Your task to perform on an android device: Search for sushi restaurants on Maps Image 0: 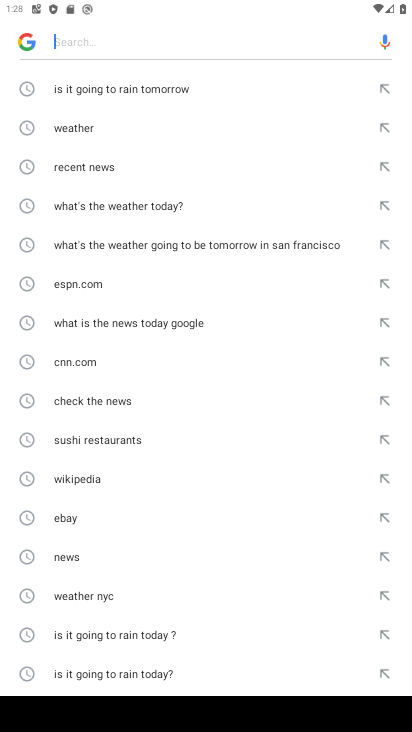
Step 0: press home button
Your task to perform on an android device: Search for sushi restaurants on Maps Image 1: 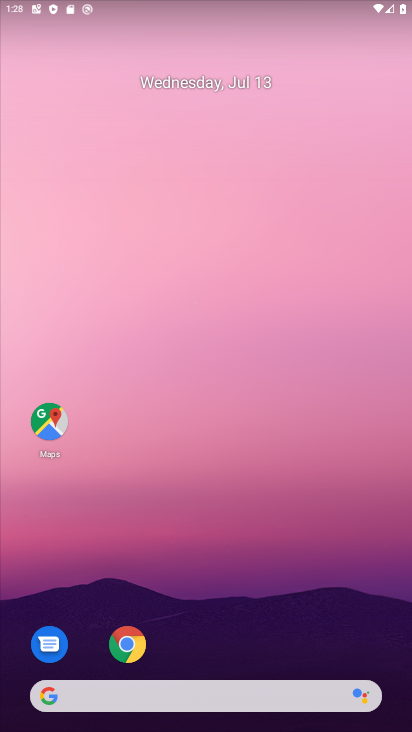
Step 1: click (57, 420)
Your task to perform on an android device: Search for sushi restaurants on Maps Image 2: 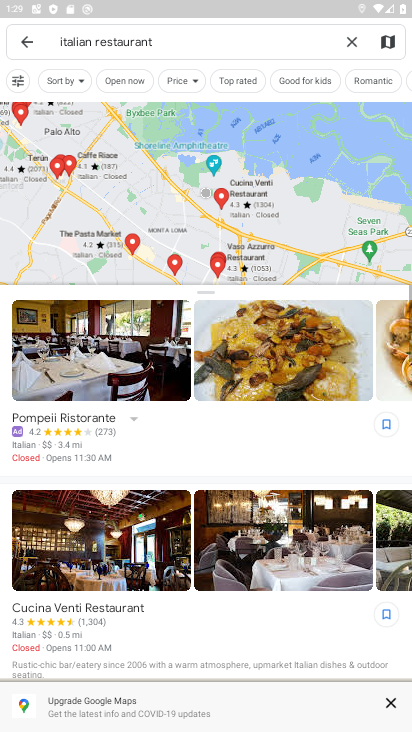
Step 2: click (354, 41)
Your task to perform on an android device: Search for sushi restaurants on Maps Image 3: 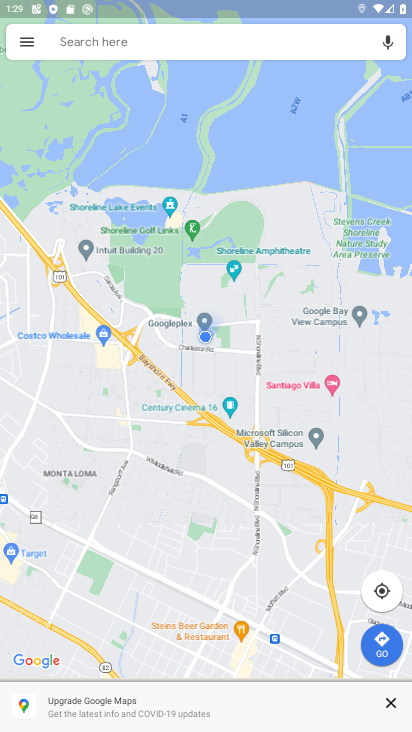
Step 3: click (65, 32)
Your task to perform on an android device: Search for sushi restaurants on Maps Image 4: 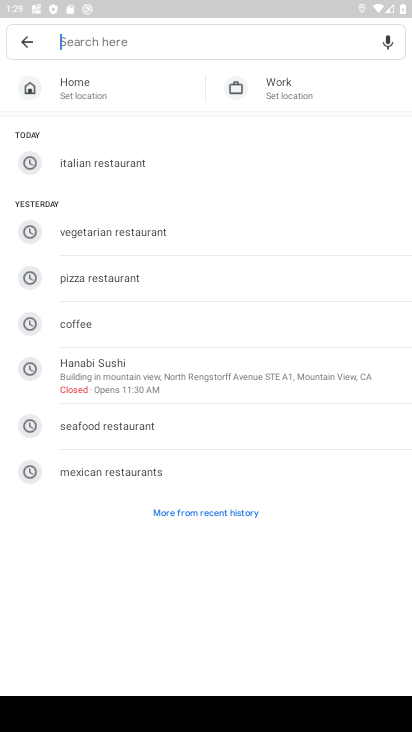
Step 4: type "sushi restaurants"
Your task to perform on an android device: Search for sushi restaurants on Maps Image 5: 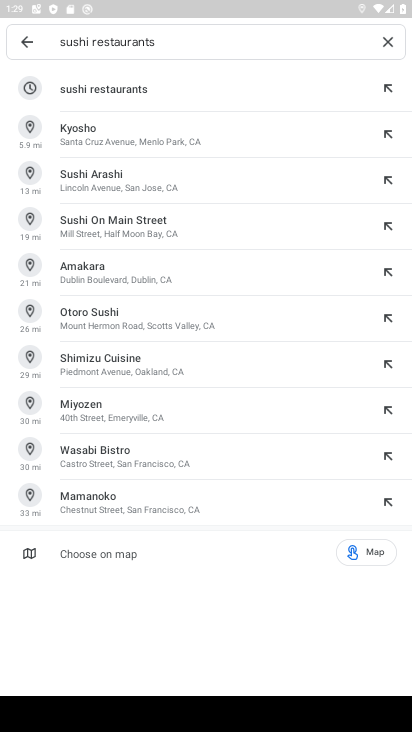
Step 5: click (155, 91)
Your task to perform on an android device: Search for sushi restaurants on Maps Image 6: 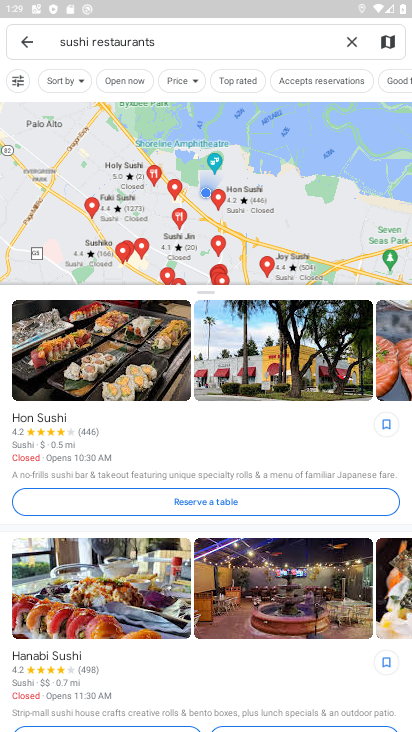
Step 6: task complete